Your task to perform on an android device: turn off notifications in google photos Image 0: 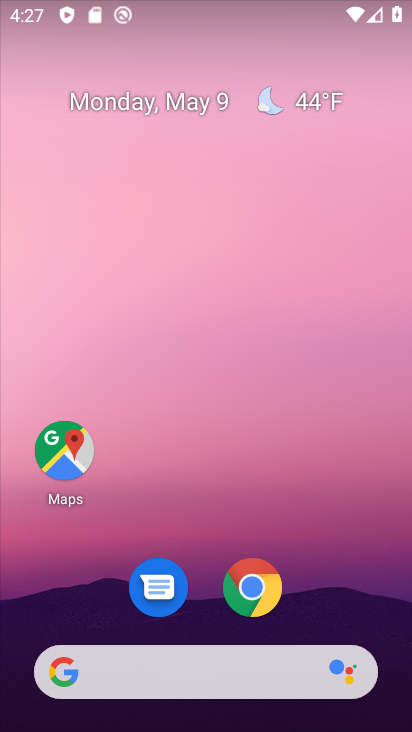
Step 0: drag from (203, 616) to (193, 39)
Your task to perform on an android device: turn off notifications in google photos Image 1: 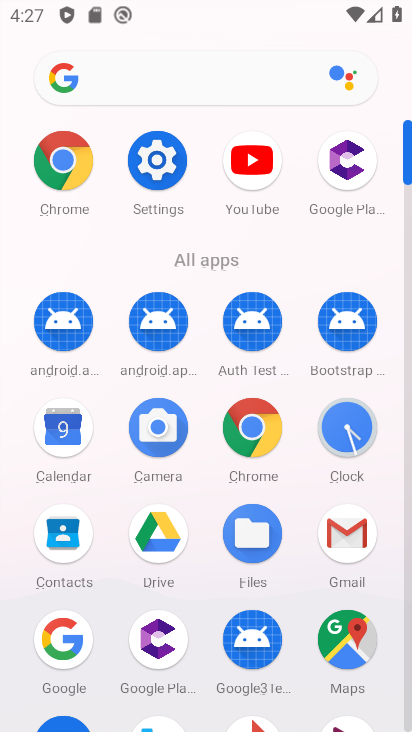
Step 1: drag from (221, 606) to (246, 186)
Your task to perform on an android device: turn off notifications in google photos Image 2: 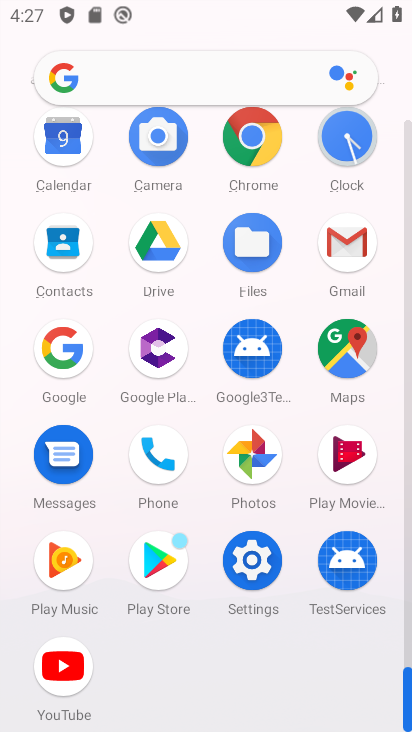
Step 2: click (259, 451)
Your task to perform on an android device: turn off notifications in google photos Image 3: 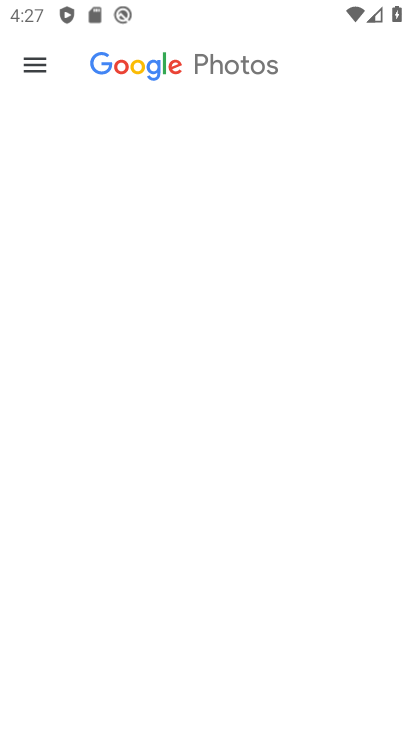
Step 3: click (33, 63)
Your task to perform on an android device: turn off notifications in google photos Image 4: 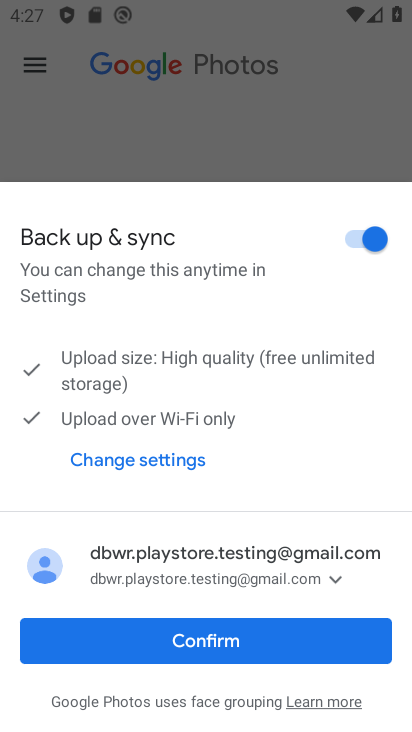
Step 4: click (218, 634)
Your task to perform on an android device: turn off notifications in google photos Image 5: 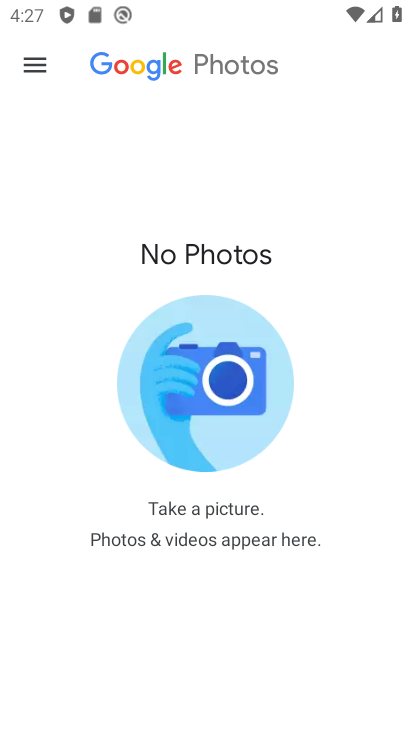
Step 5: click (38, 66)
Your task to perform on an android device: turn off notifications in google photos Image 6: 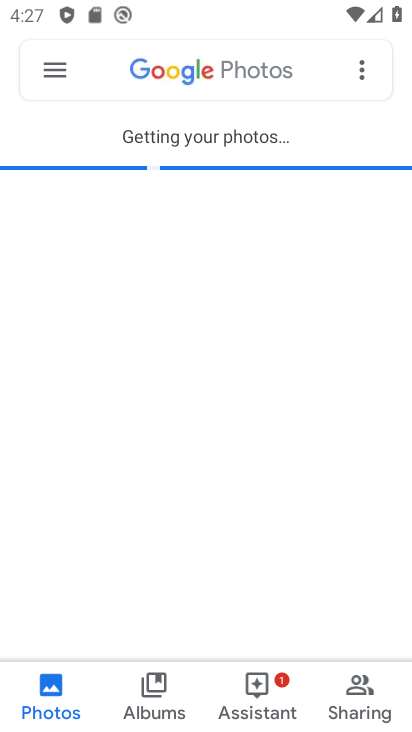
Step 6: click (37, 75)
Your task to perform on an android device: turn off notifications in google photos Image 7: 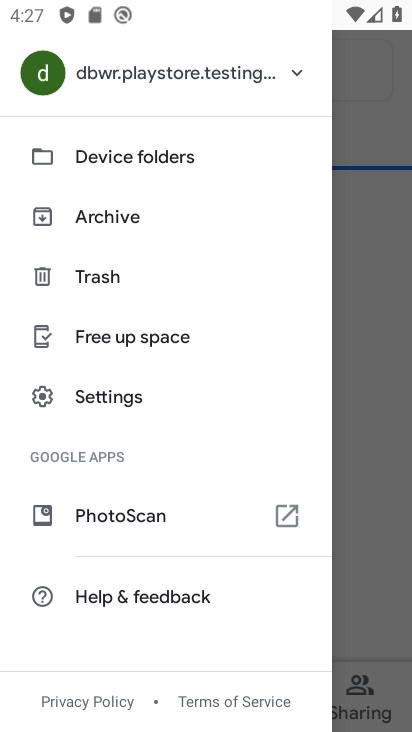
Step 7: click (110, 380)
Your task to perform on an android device: turn off notifications in google photos Image 8: 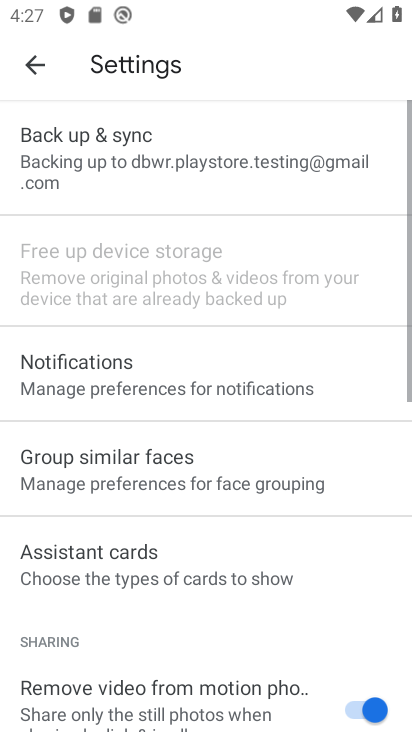
Step 8: click (161, 383)
Your task to perform on an android device: turn off notifications in google photos Image 9: 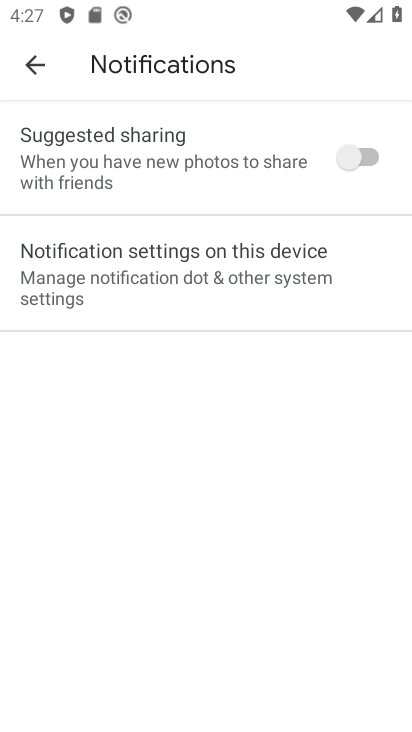
Step 9: click (93, 292)
Your task to perform on an android device: turn off notifications in google photos Image 10: 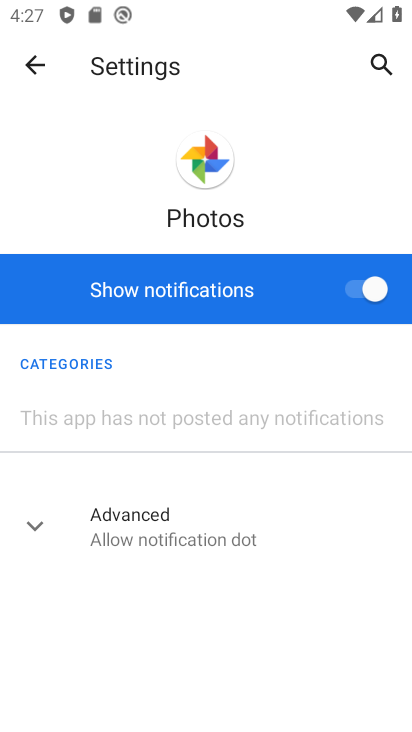
Step 10: click (369, 304)
Your task to perform on an android device: turn off notifications in google photos Image 11: 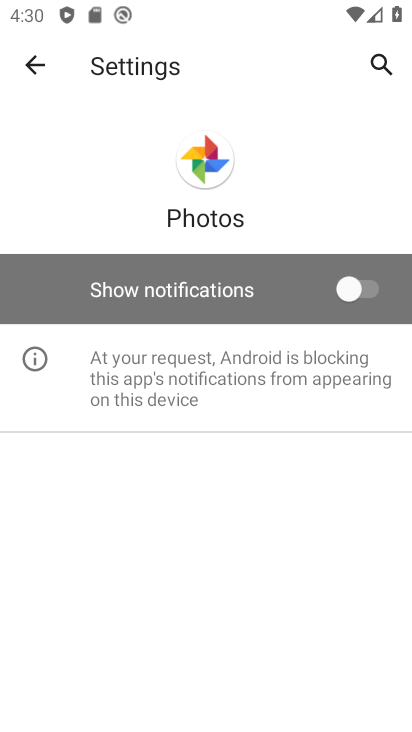
Step 11: task complete